Your task to perform on an android device: What's the weather? Image 0: 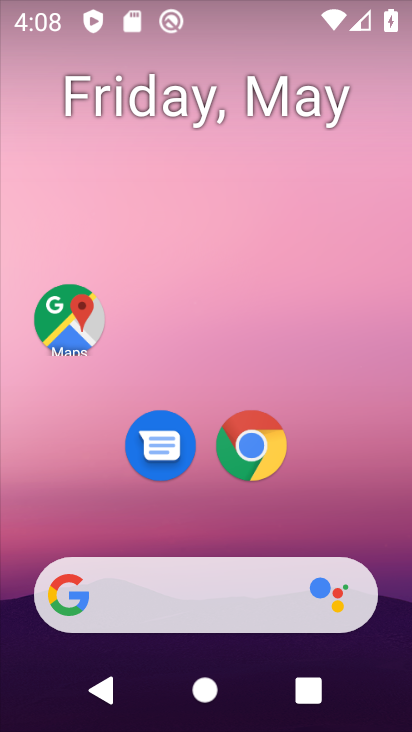
Step 0: drag from (218, 520) to (217, 159)
Your task to perform on an android device: What's the weather? Image 1: 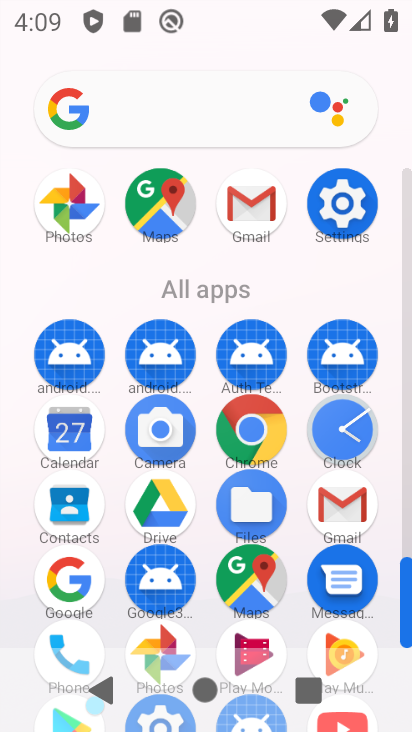
Step 1: click (63, 581)
Your task to perform on an android device: What's the weather? Image 2: 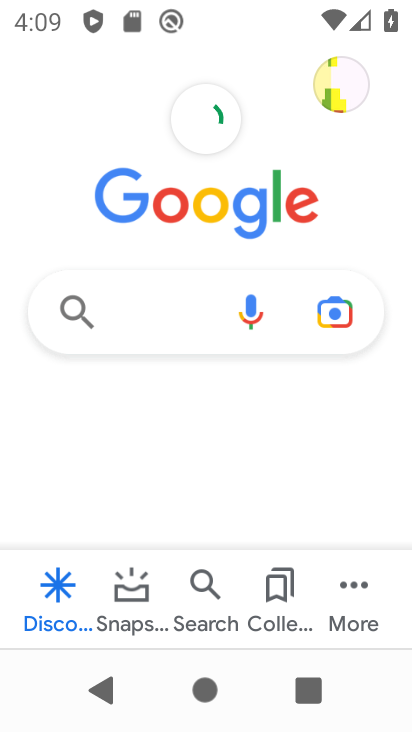
Step 2: click (68, 321)
Your task to perform on an android device: What's the weather? Image 3: 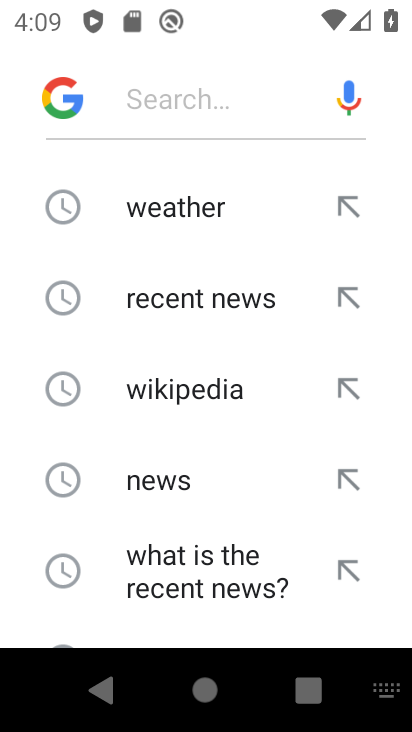
Step 3: click (184, 198)
Your task to perform on an android device: What's the weather? Image 4: 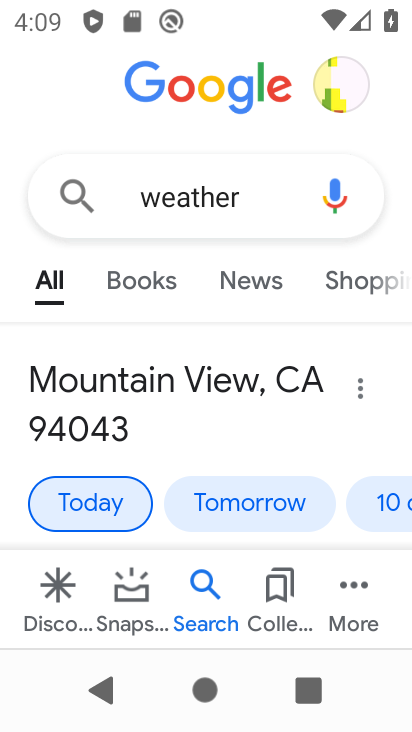
Step 4: task complete